Your task to perform on an android device: Open wifi settings Image 0: 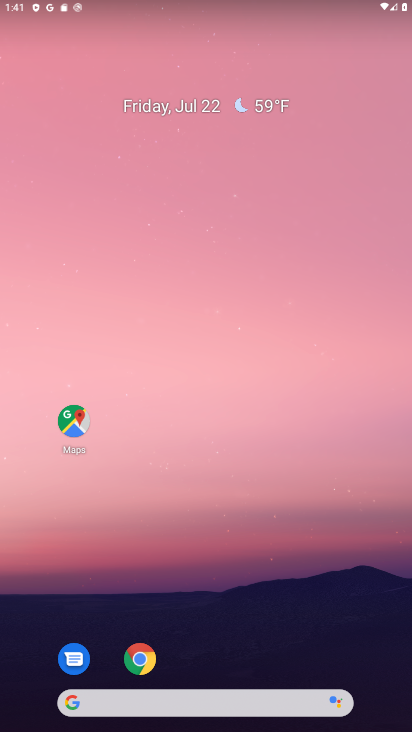
Step 0: drag from (332, 646) to (233, 43)
Your task to perform on an android device: Open wifi settings Image 1: 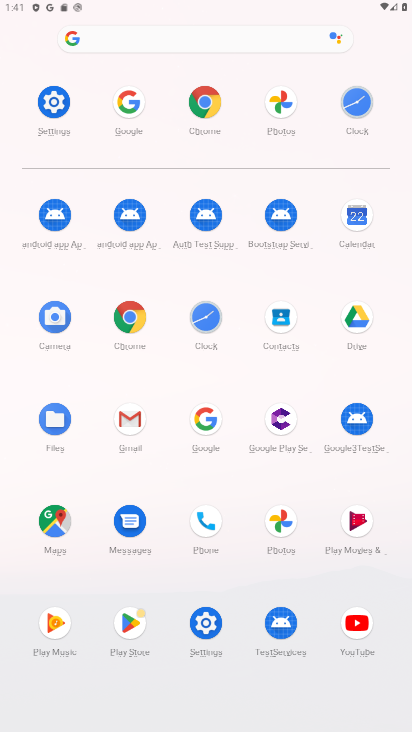
Step 1: click (40, 118)
Your task to perform on an android device: Open wifi settings Image 2: 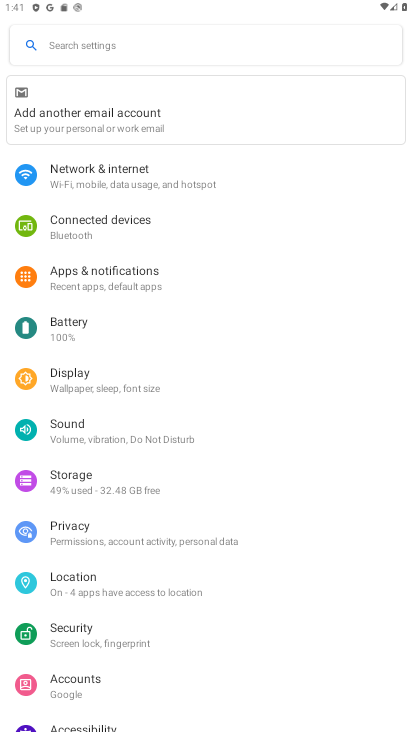
Step 2: click (111, 177)
Your task to perform on an android device: Open wifi settings Image 3: 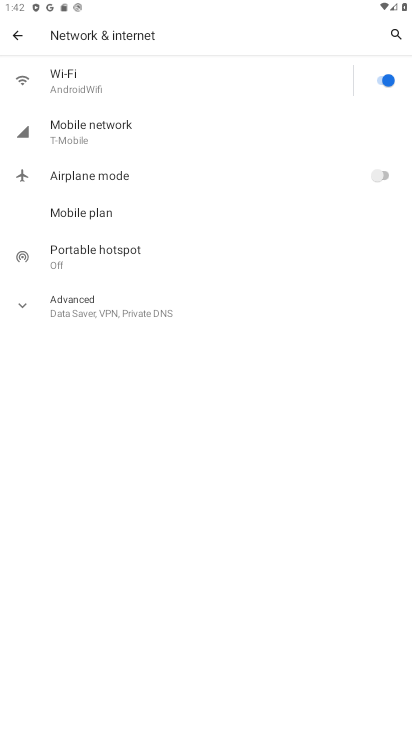
Step 3: click (75, 92)
Your task to perform on an android device: Open wifi settings Image 4: 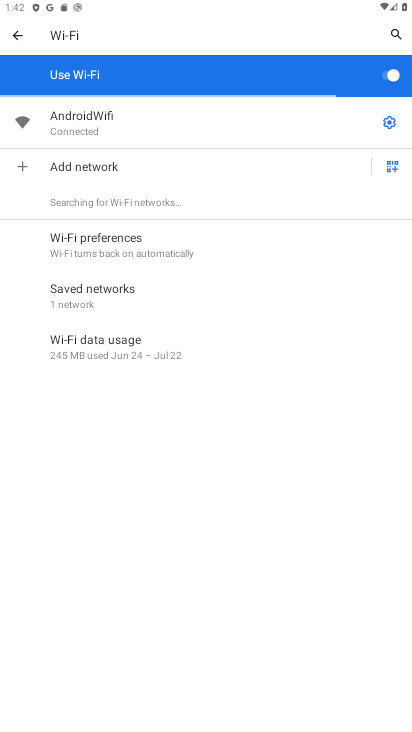
Step 4: task complete